Your task to perform on an android device: Check the weather Image 0: 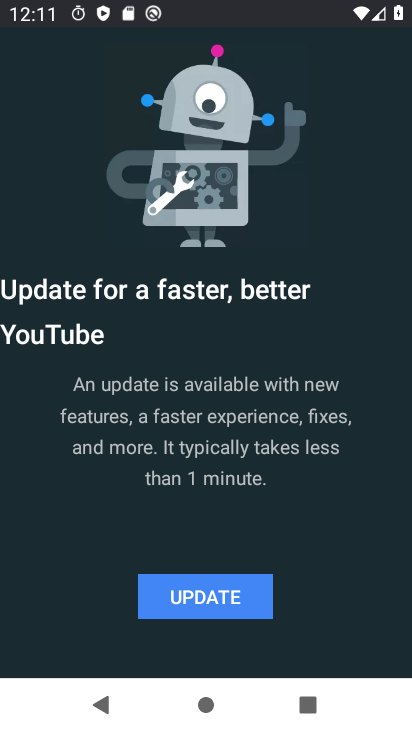
Step 0: press home button
Your task to perform on an android device: Check the weather Image 1: 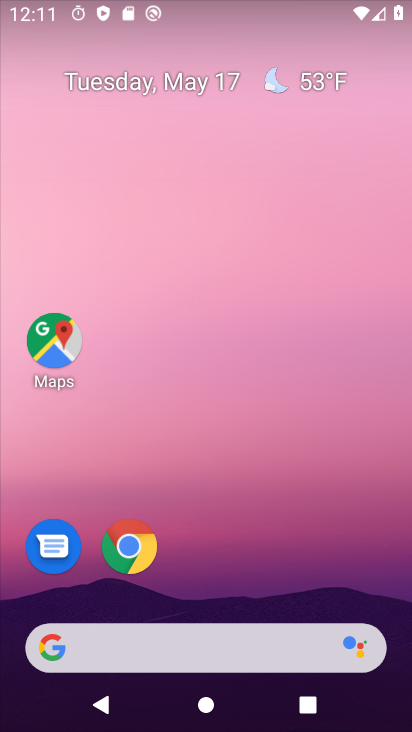
Step 1: click (316, 88)
Your task to perform on an android device: Check the weather Image 2: 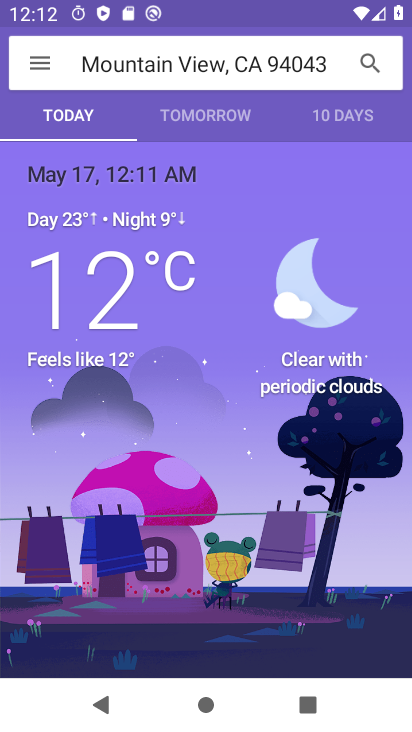
Step 2: task complete